Your task to perform on an android device: uninstall "Paramount+ | Peak Streaming" Image 0: 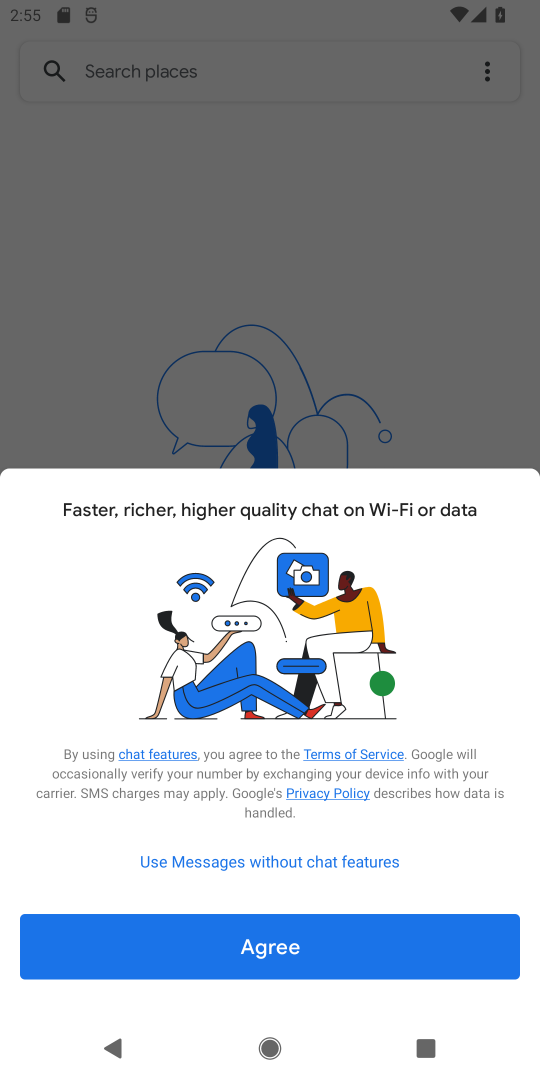
Step 0: press back button
Your task to perform on an android device: uninstall "Paramount+ | Peak Streaming" Image 1: 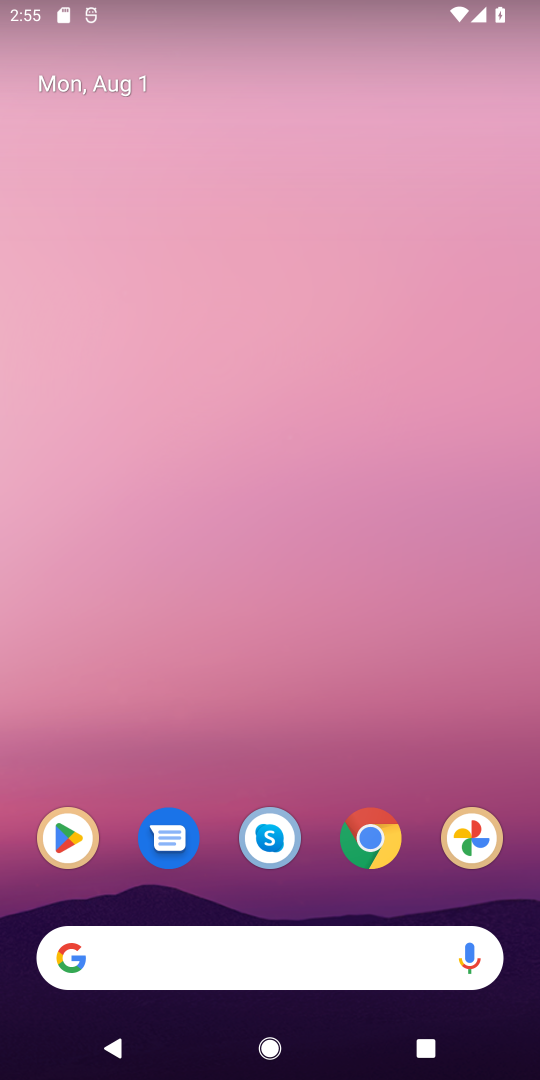
Step 1: click (90, 824)
Your task to perform on an android device: uninstall "Paramount+ | Peak Streaming" Image 2: 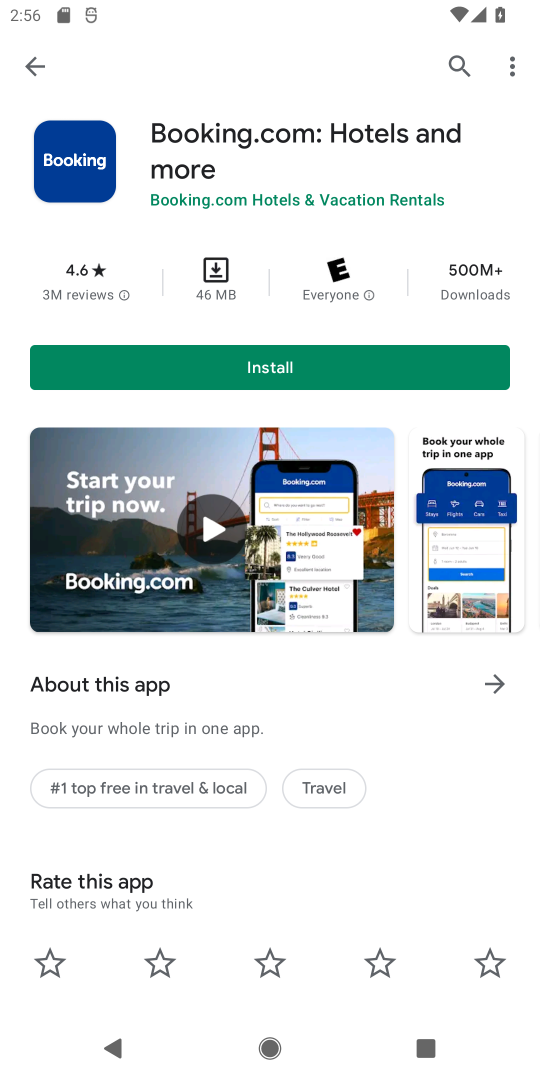
Step 2: click (450, 69)
Your task to perform on an android device: uninstall "Paramount+ | Peak Streaming" Image 3: 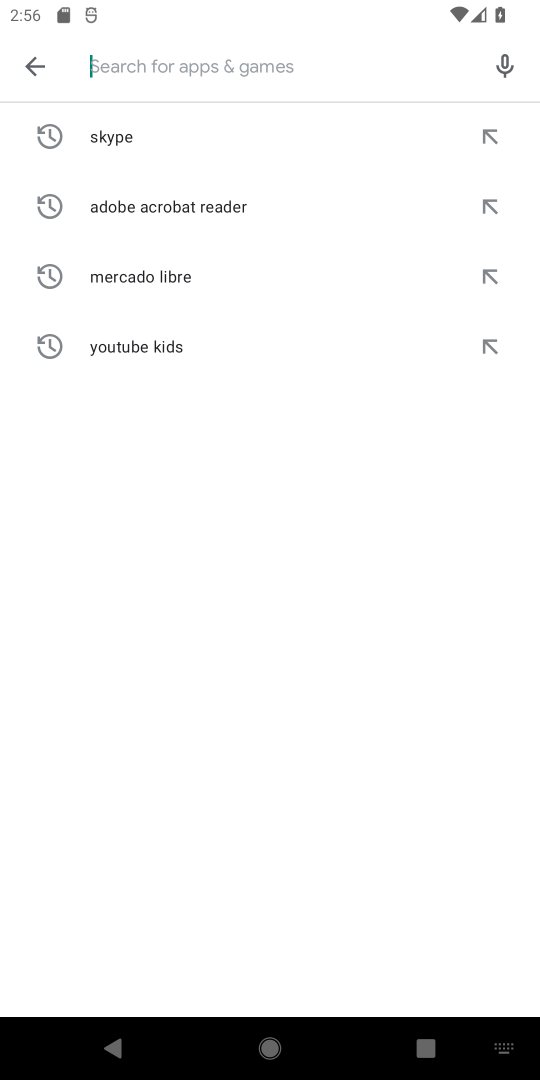
Step 3: type "Paramount+ | Peak Streaming"
Your task to perform on an android device: uninstall "Paramount+ | Peak Streaming" Image 4: 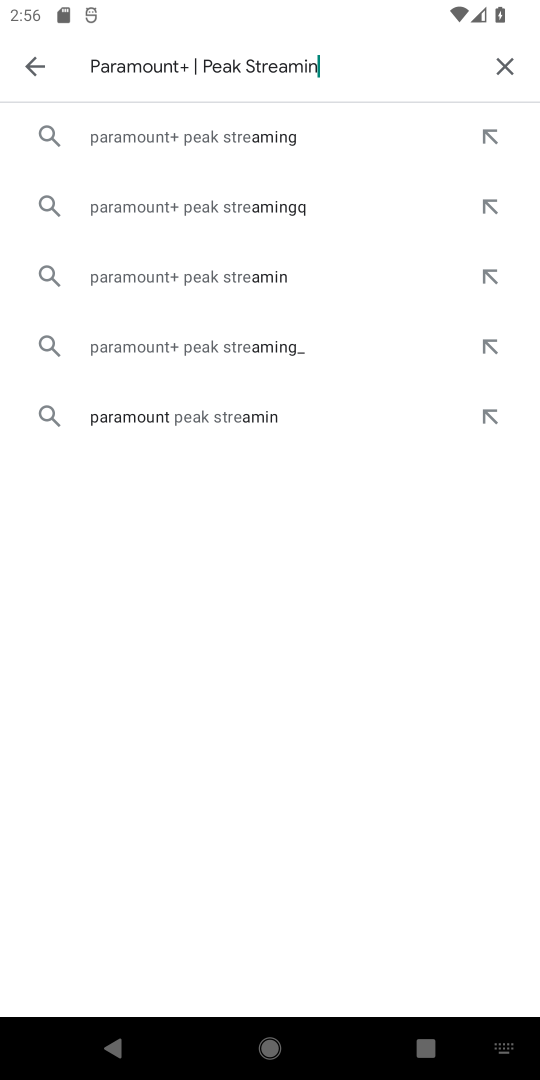
Step 4: type ""
Your task to perform on an android device: uninstall "Paramount+ | Peak Streaming" Image 5: 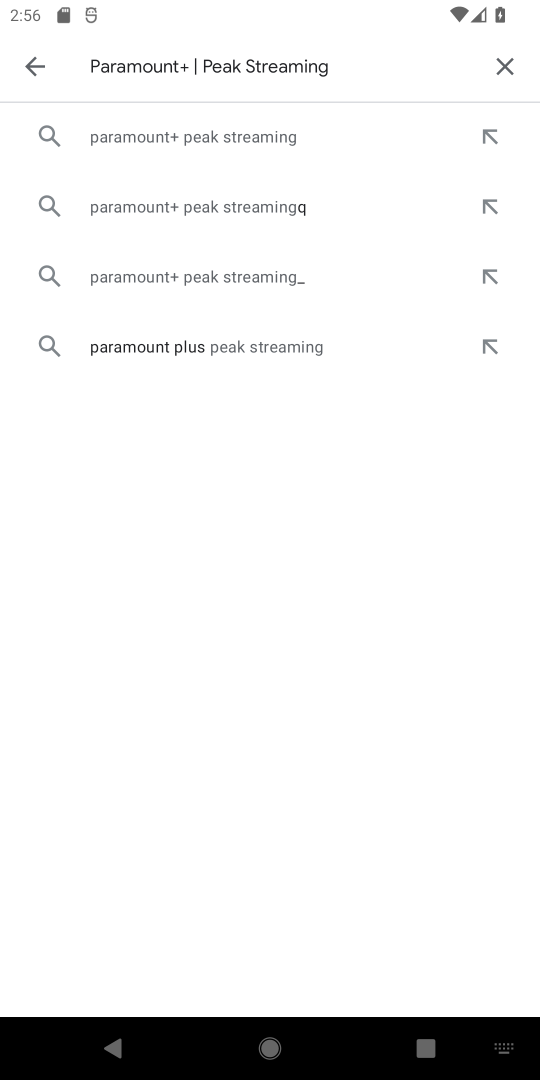
Step 5: click (210, 138)
Your task to perform on an android device: uninstall "Paramount+ | Peak Streaming" Image 6: 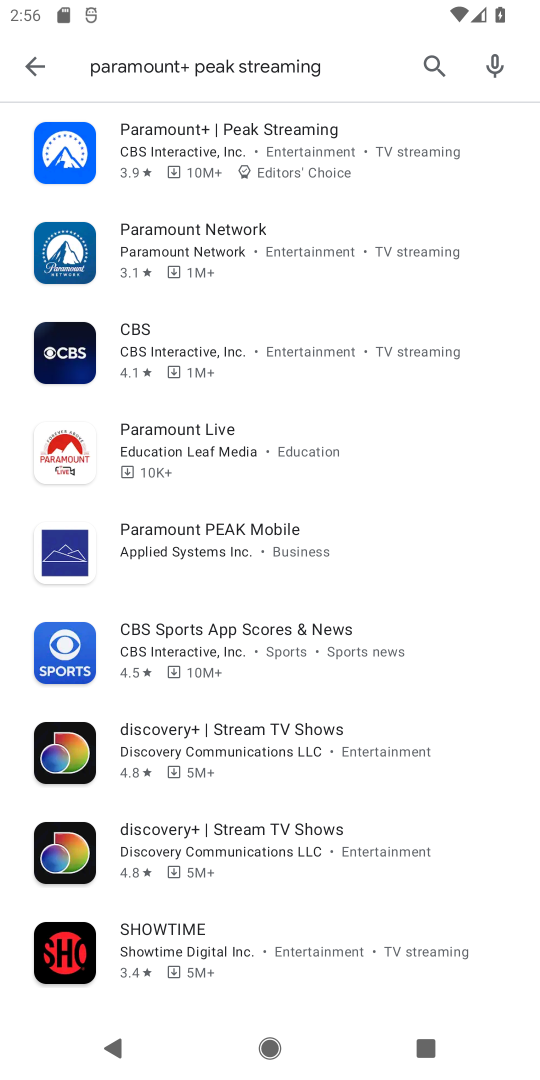
Step 6: click (227, 161)
Your task to perform on an android device: uninstall "Paramount+ | Peak Streaming" Image 7: 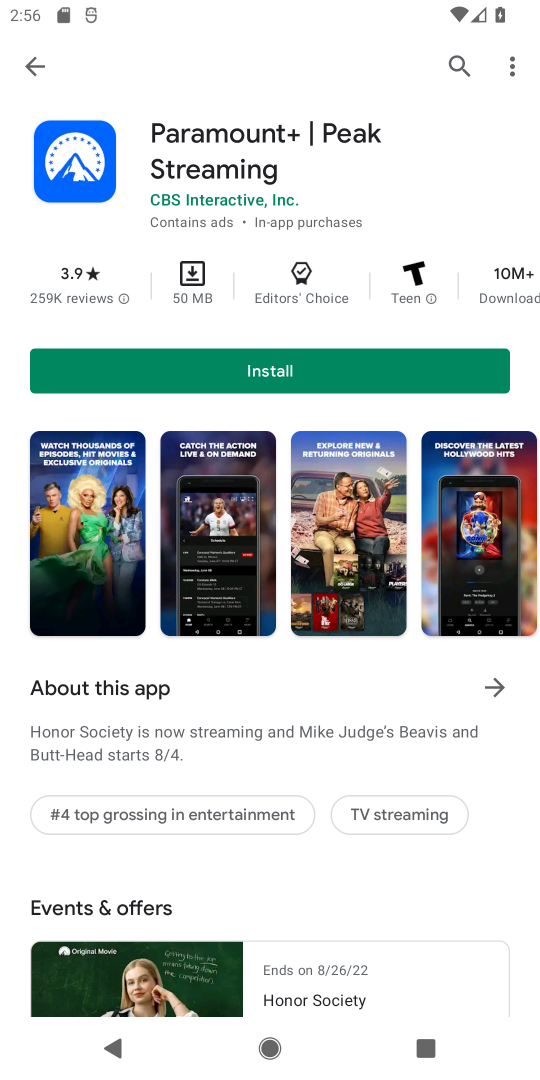
Step 7: task complete